Your task to perform on an android device: Turn on the flashlight Image 0: 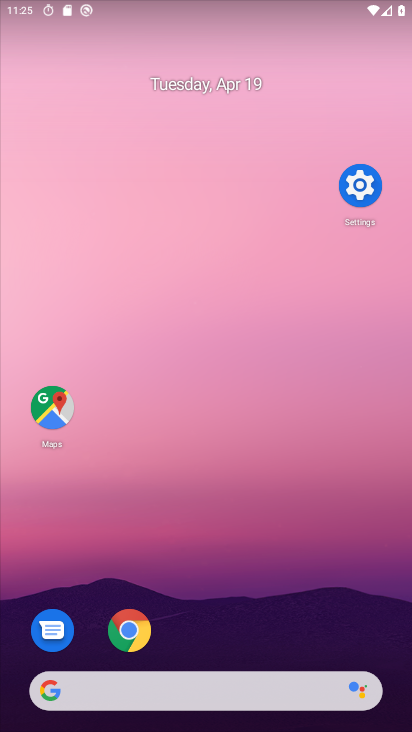
Step 0: drag from (230, 579) to (263, 311)
Your task to perform on an android device: Turn on the flashlight Image 1: 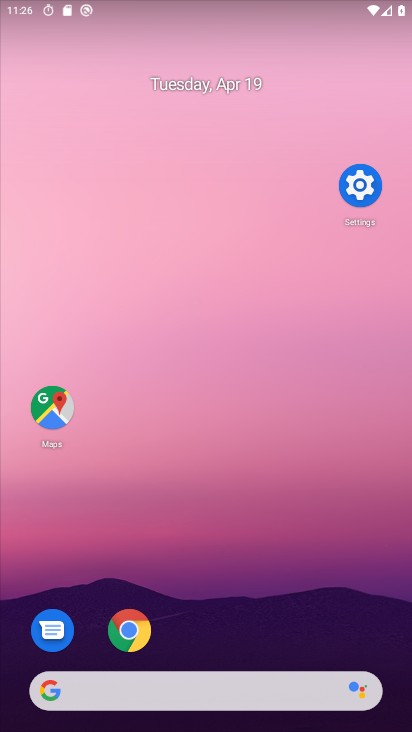
Step 1: task complete